Your task to perform on an android device: Open Google Image 0: 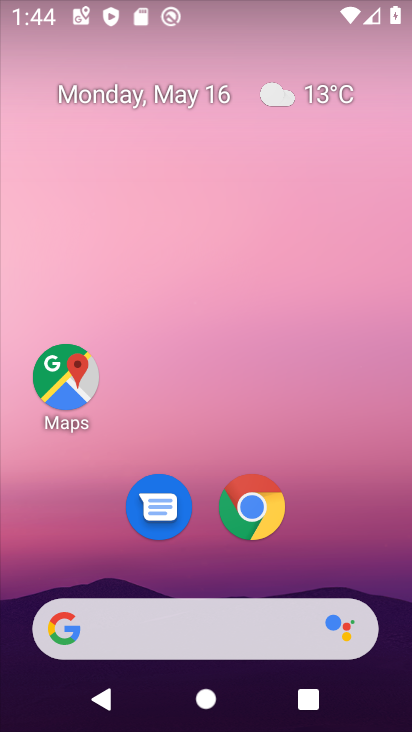
Step 0: drag from (379, 558) to (377, 89)
Your task to perform on an android device: Open Google Image 1: 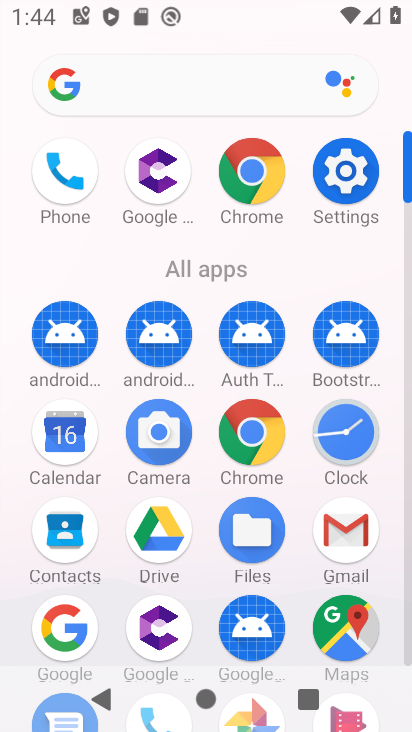
Step 1: drag from (206, 588) to (201, 416)
Your task to perform on an android device: Open Google Image 2: 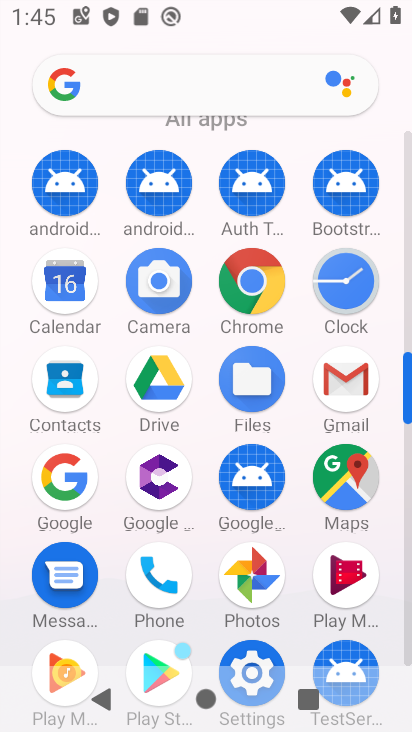
Step 2: drag from (204, 604) to (202, 378)
Your task to perform on an android device: Open Google Image 3: 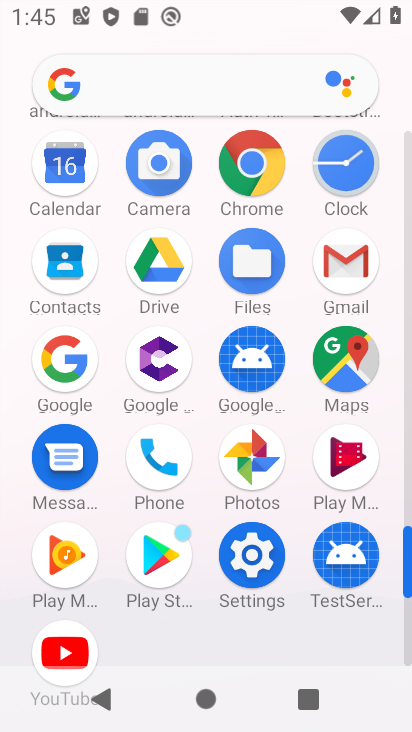
Step 3: click (71, 376)
Your task to perform on an android device: Open Google Image 4: 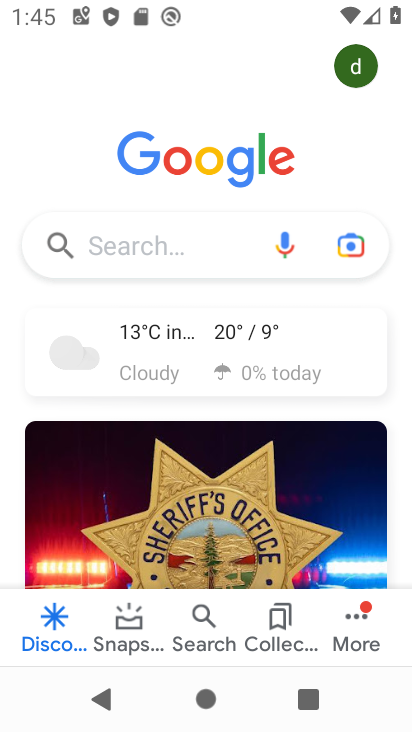
Step 4: task complete